Your task to perform on an android device: turn on location history Image 0: 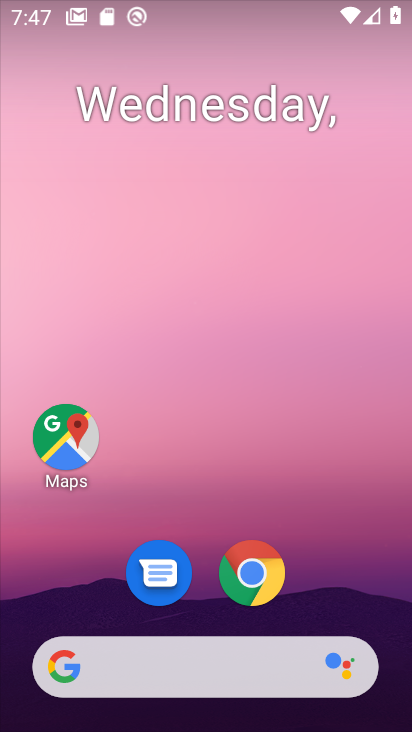
Step 0: click (69, 441)
Your task to perform on an android device: turn on location history Image 1: 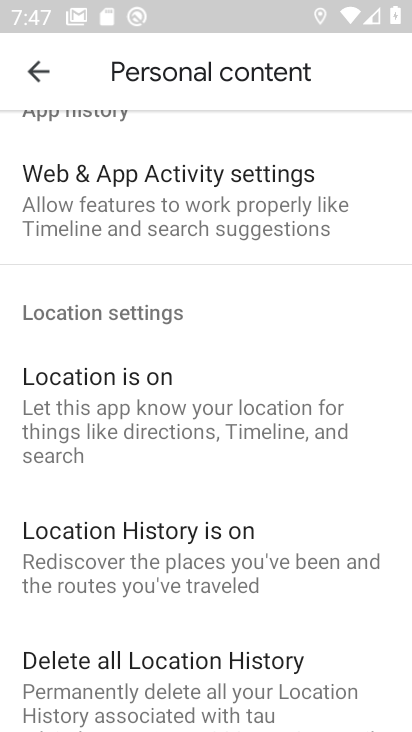
Step 1: click (132, 568)
Your task to perform on an android device: turn on location history Image 2: 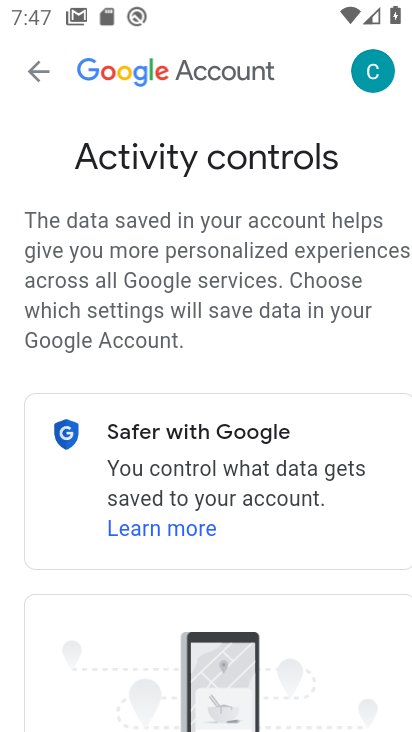
Step 2: drag from (326, 581) to (292, 130)
Your task to perform on an android device: turn on location history Image 3: 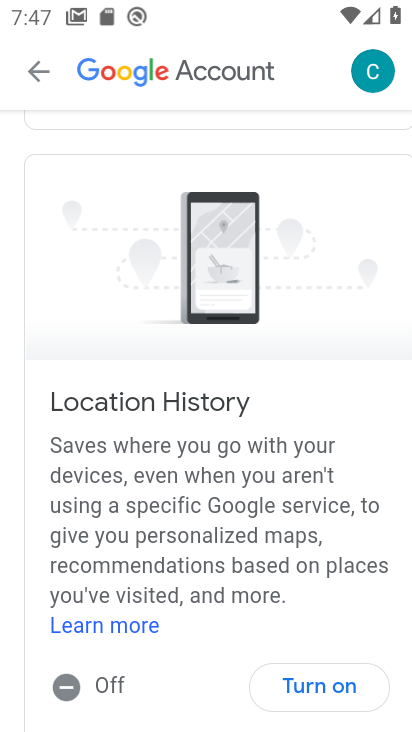
Step 3: click (324, 679)
Your task to perform on an android device: turn on location history Image 4: 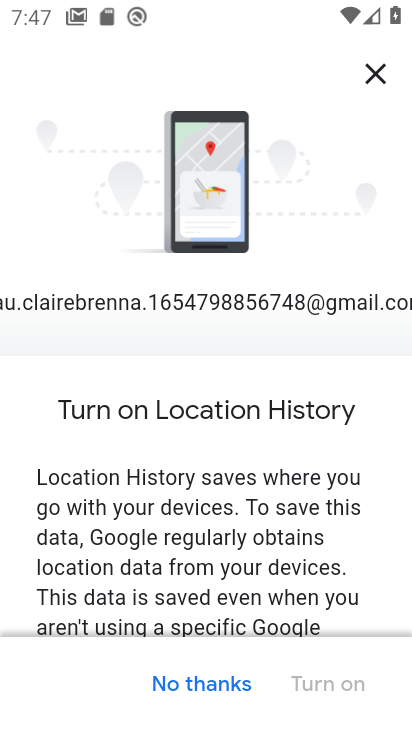
Step 4: drag from (201, 584) to (185, 24)
Your task to perform on an android device: turn on location history Image 5: 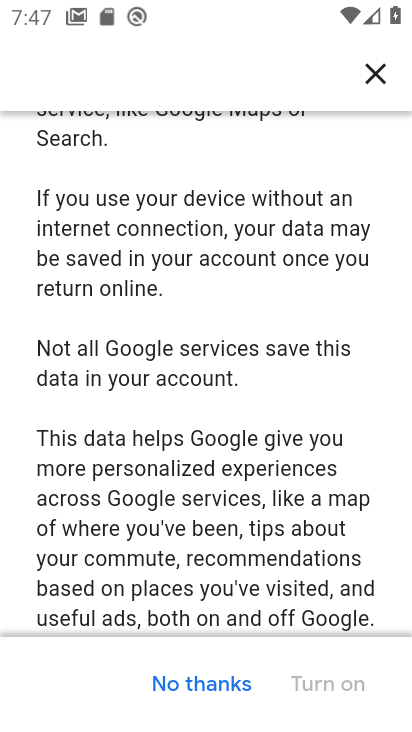
Step 5: drag from (212, 512) to (197, 121)
Your task to perform on an android device: turn on location history Image 6: 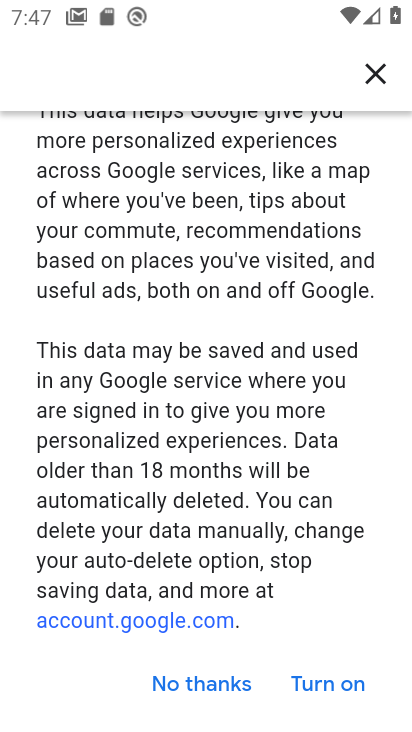
Step 6: drag from (229, 558) to (227, 214)
Your task to perform on an android device: turn on location history Image 7: 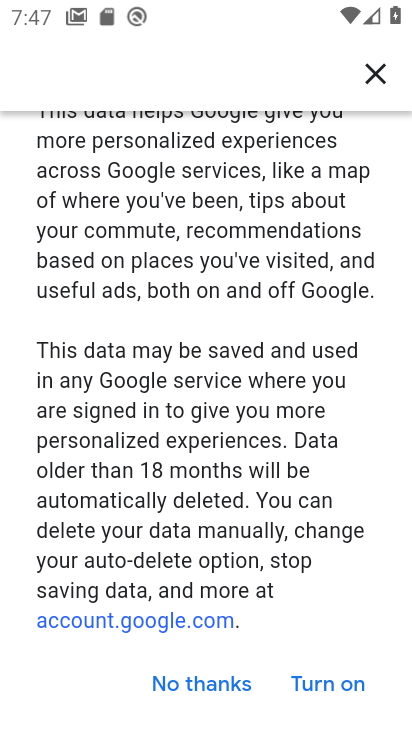
Step 7: click (339, 688)
Your task to perform on an android device: turn on location history Image 8: 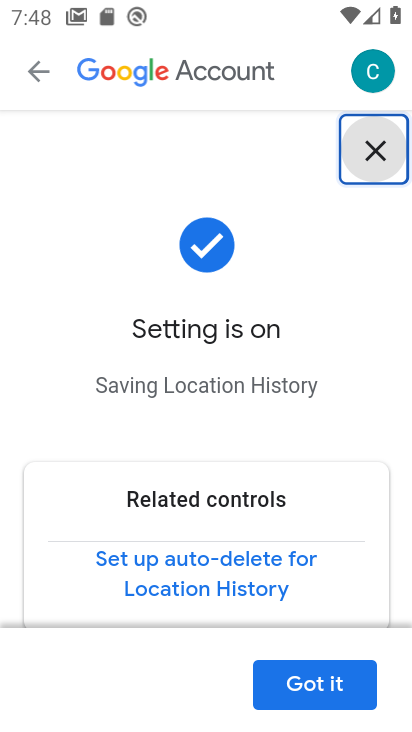
Step 8: click (314, 695)
Your task to perform on an android device: turn on location history Image 9: 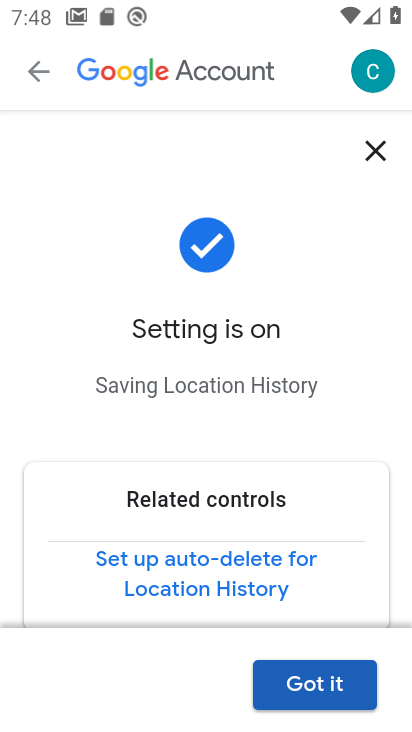
Step 9: click (317, 689)
Your task to perform on an android device: turn on location history Image 10: 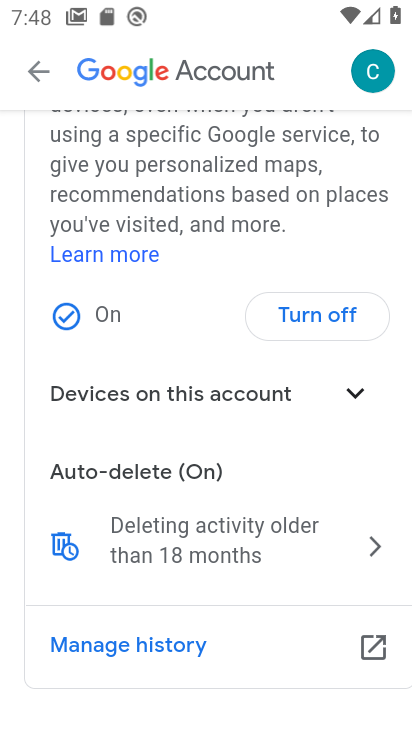
Step 10: task complete